Your task to perform on an android device: toggle notification dots Image 0: 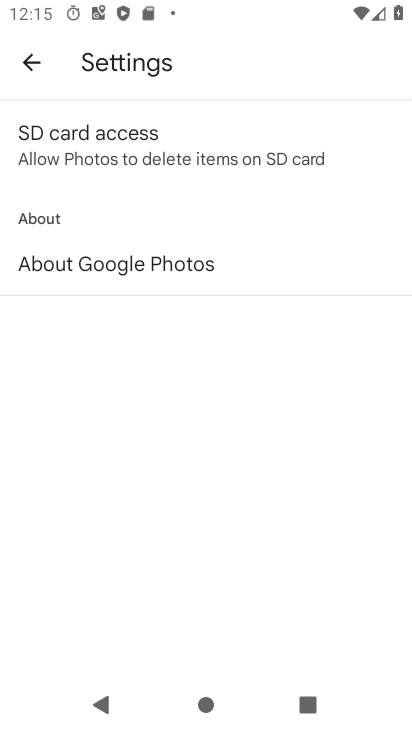
Step 0: press home button
Your task to perform on an android device: toggle notification dots Image 1: 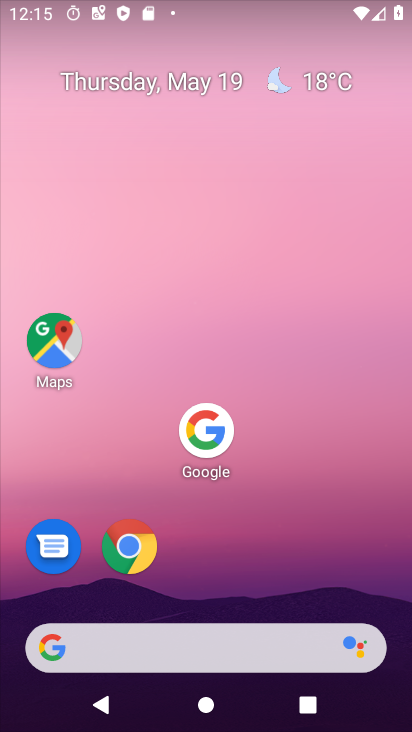
Step 1: drag from (246, 578) to (259, 23)
Your task to perform on an android device: toggle notification dots Image 2: 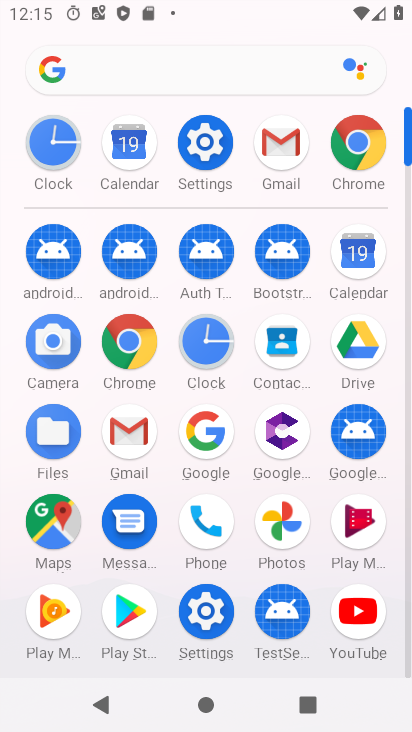
Step 2: click (207, 141)
Your task to perform on an android device: toggle notification dots Image 3: 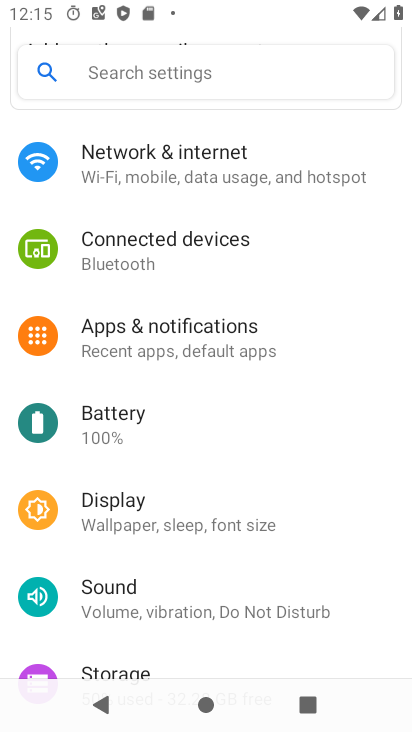
Step 3: click (206, 342)
Your task to perform on an android device: toggle notification dots Image 4: 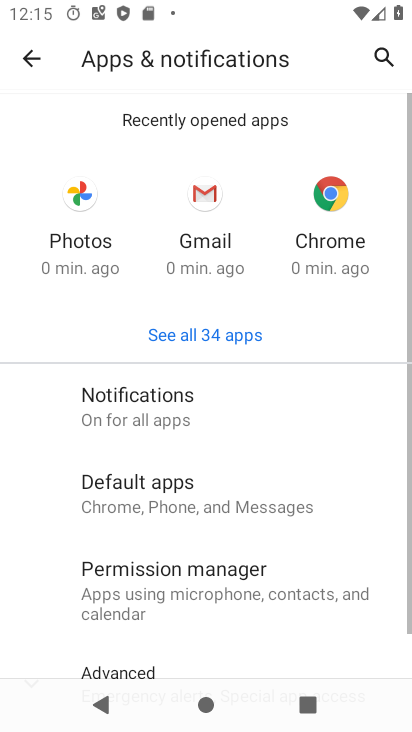
Step 4: click (195, 408)
Your task to perform on an android device: toggle notification dots Image 5: 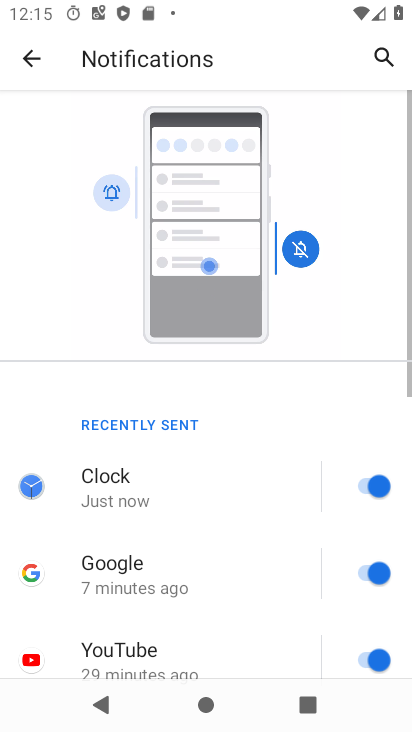
Step 5: drag from (290, 567) to (289, 40)
Your task to perform on an android device: toggle notification dots Image 6: 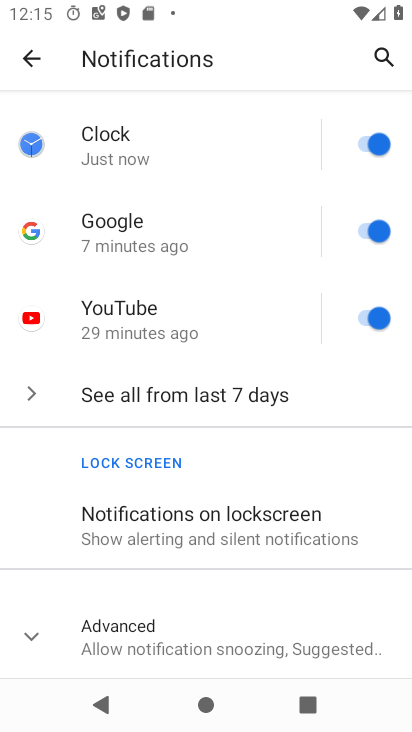
Step 6: click (169, 640)
Your task to perform on an android device: toggle notification dots Image 7: 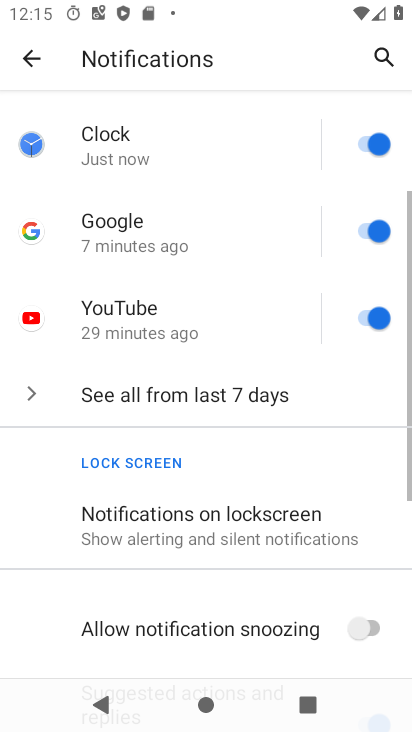
Step 7: drag from (302, 622) to (295, 148)
Your task to perform on an android device: toggle notification dots Image 8: 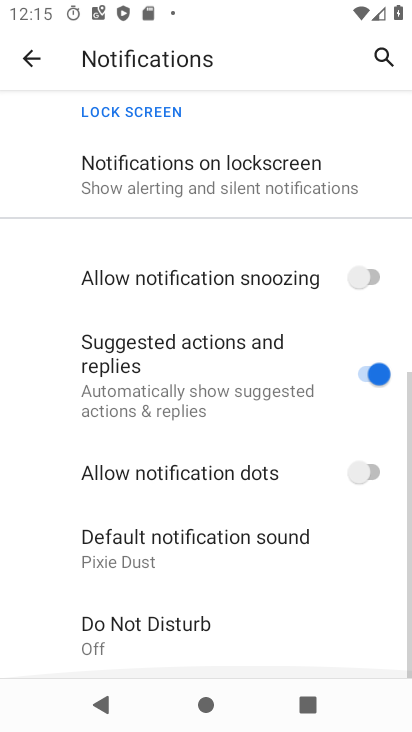
Step 8: drag from (290, 623) to (265, 324)
Your task to perform on an android device: toggle notification dots Image 9: 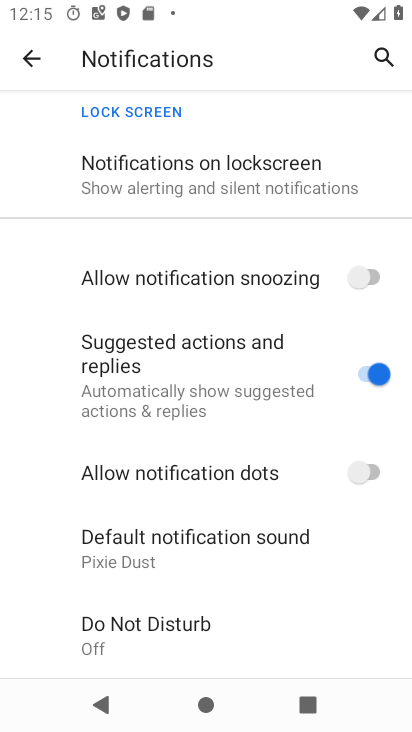
Step 9: click (367, 472)
Your task to perform on an android device: toggle notification dots Image 10: 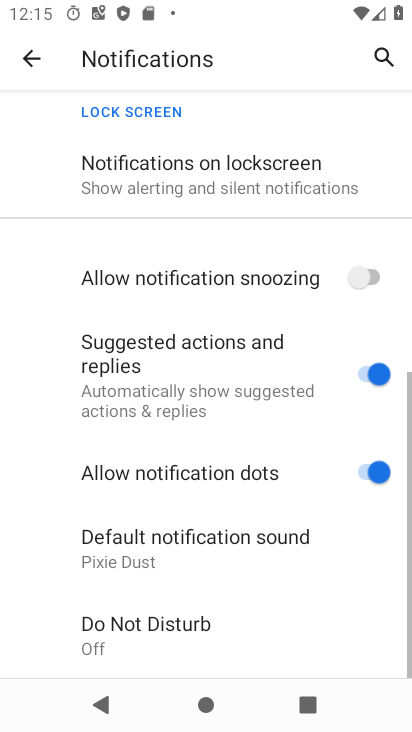
Step 10: task complete